Your task to perform on an android device: open the mobile data screen to see how much data has been used Image 0: 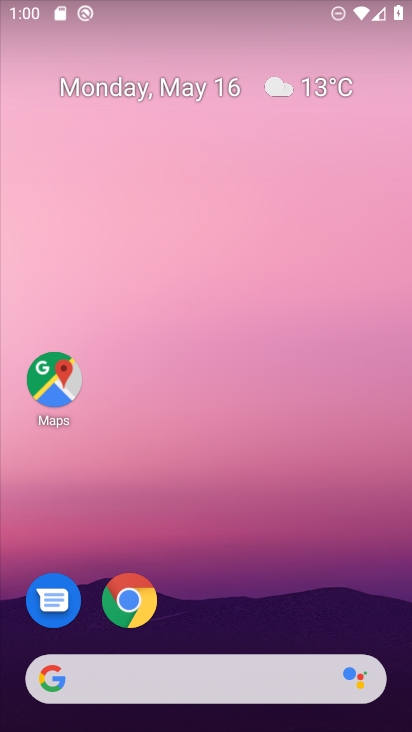
Step 0: drag from (203, 220) to (203, 9)
Your task to perform on an android device: open the mobile data screen to see how much data has been used Image 1: 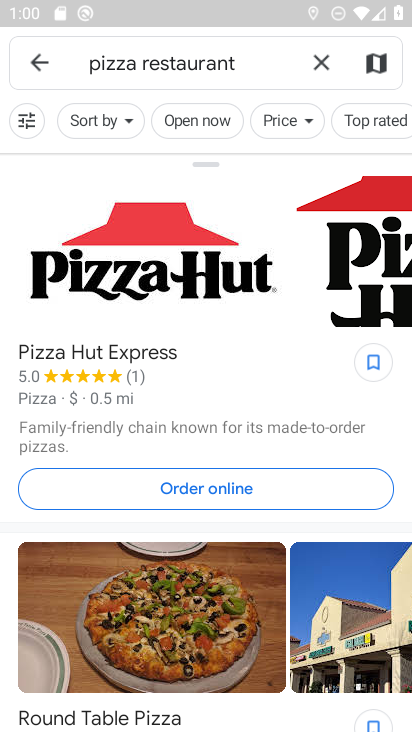
Step 1: press home button
Your task to perform on an android device: open the mobile data screen to see how much data has been used Image 2: 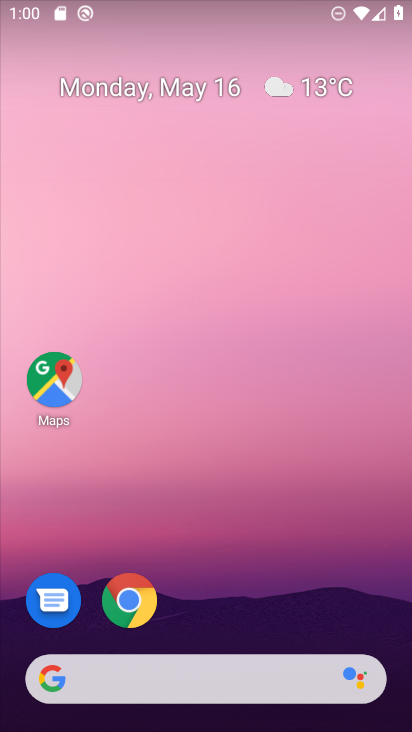
Step 2: drag from (231, 618) to (241, 0)
Your task to perform on an android device: open the mobile data screen to see how much data has been used Image 3: 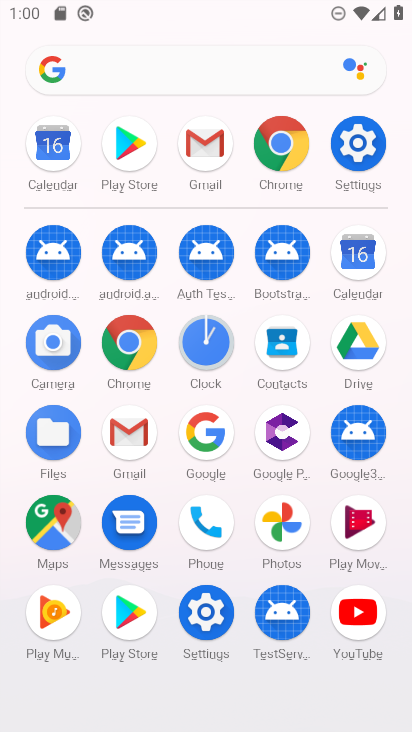
Step 3: click (354, 136)
Your task to perform on an android device: open the mobile data screen to see how much data has been used Image 4: 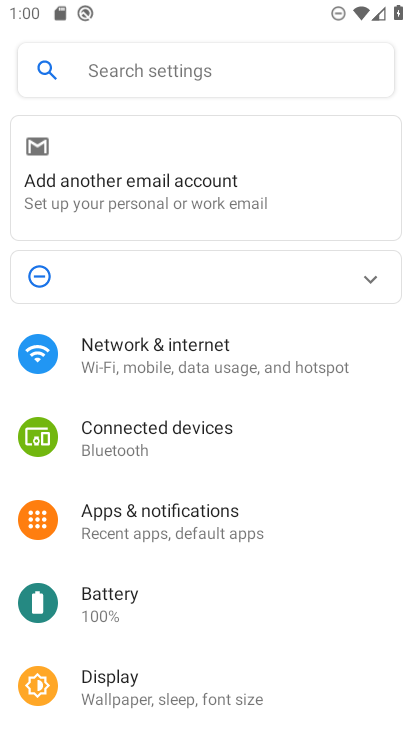
Step 4: click (244, 343)
Your task to perform on an android device: open the mobile data screen to see how much data has been used Image 5: 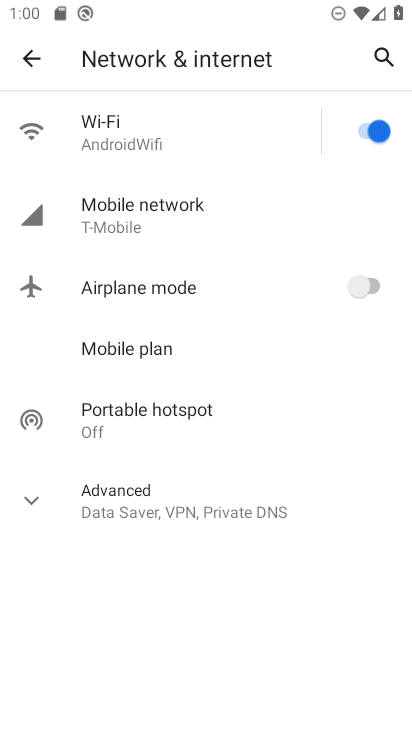
Step 5: click (173, 217)
Your task to perform on an android device: open the mobile data screen to see how much data has been used Image 6: 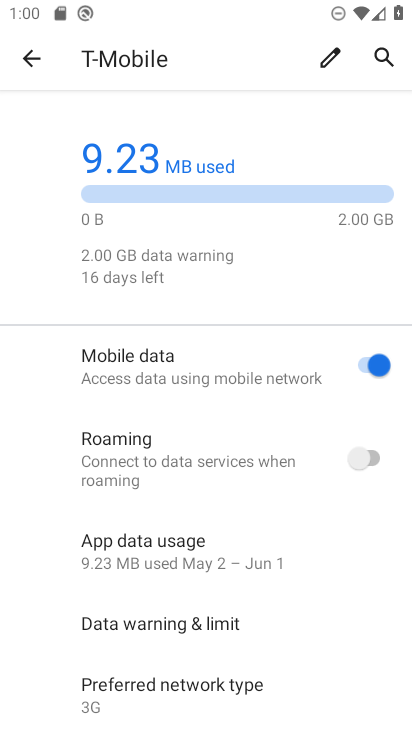
Step 6: click (221, 544)
Your task to perform on an android device: open the mobile data screen to see how much data has been used Image 7: 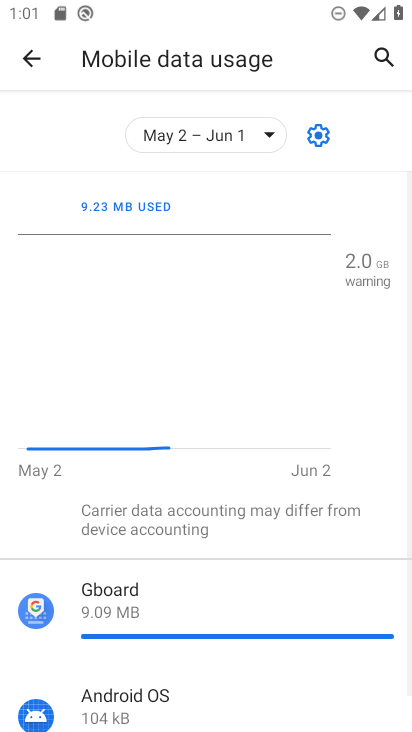
Step 7: task complete